Your task to perform on an android device: toggle show notifications on the lock screen Image 0: 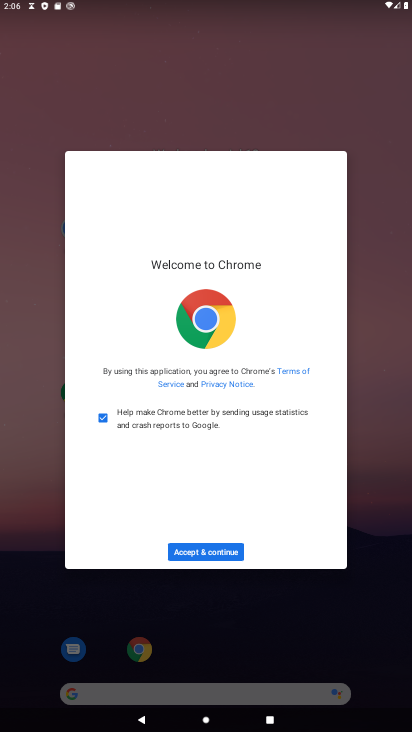
Step 0: press home button
Your task to perform on an android device: toggle show notifications on the lock screen Image 1: 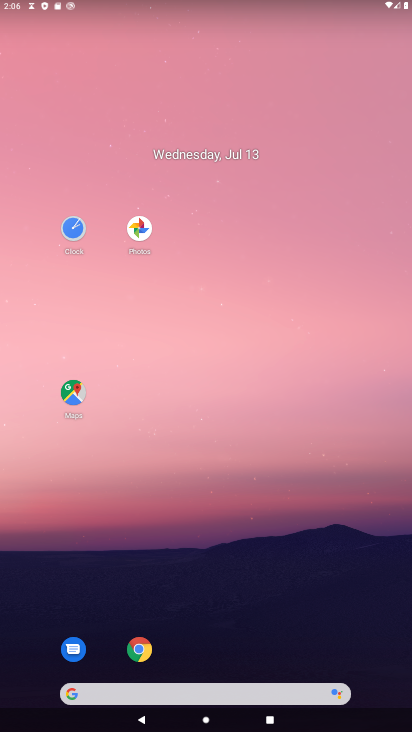
Step 1: drag from (198, 599) to (215, 125)
Your task to perform on an android device: toggle show notifications on the lock screen Image 2: 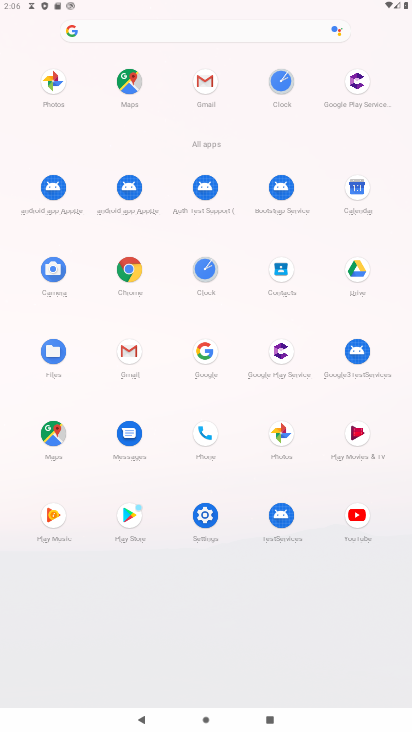
Step 2: drag from (193, 505) to (163, 313)
Your task to perform on an android device: toggle show notifications on the lock screen Image 3: 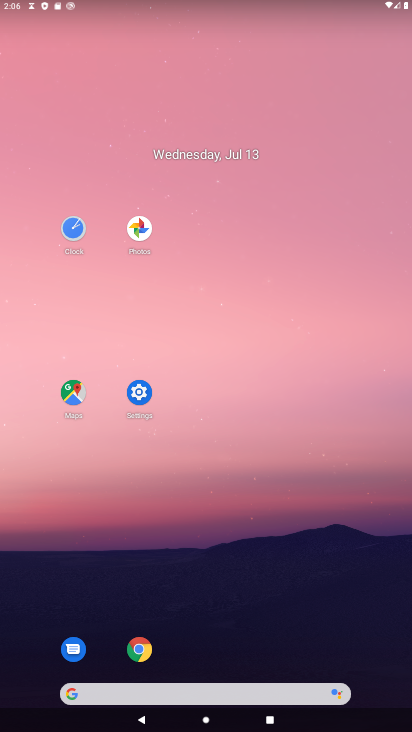
Step 3: click (140, 391)
Your task to perform on an android device: toggle show notifications on the lock screen Image 4: 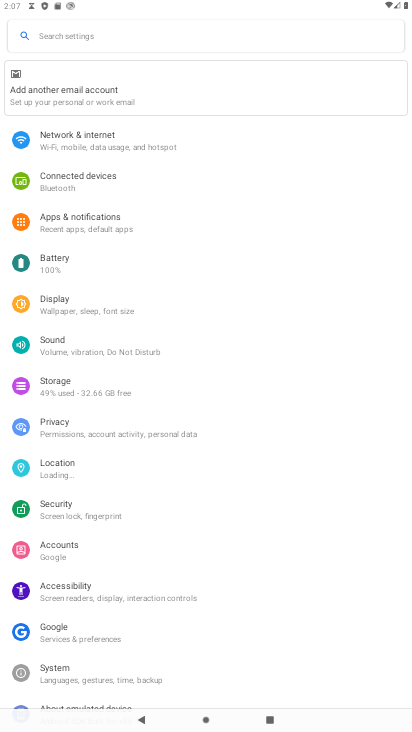
Step 4: click (114, 232)
Your task to perform on an android device: toggle show notifications on the lock screen Image 5: 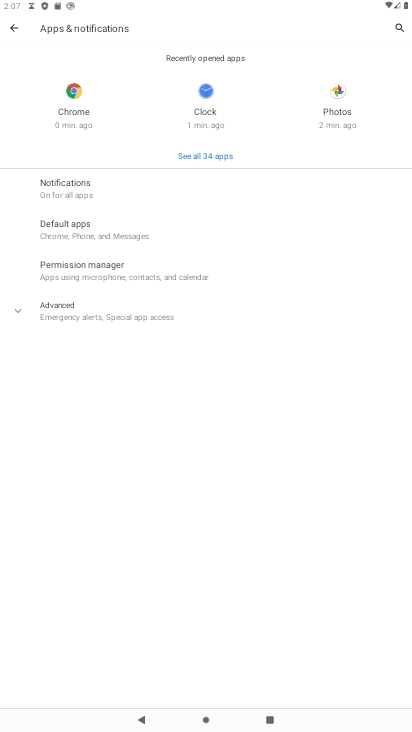
Step 5: click (100, 179)
Your task to perform on an android device: toggle show notifications on the lock screen Image 6: 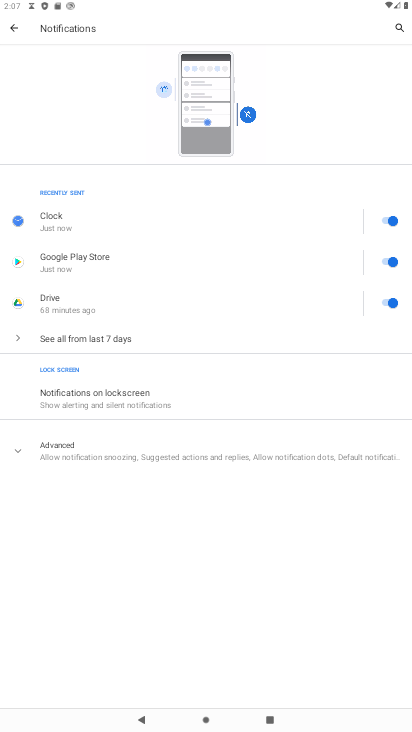
Step 6: click (111, 442)
Your task to perform on an android device: toggle show notifications on the lock screen Image 7: 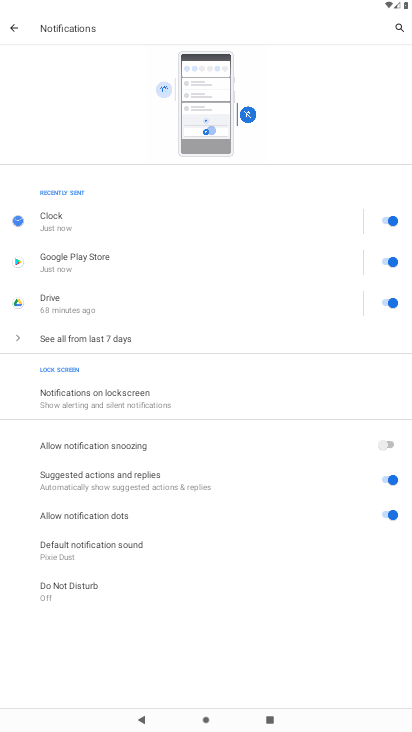
Step 7: click (129, 415)
Your task to perform on an android device: toggle show notifications on the lock screen Image 8: 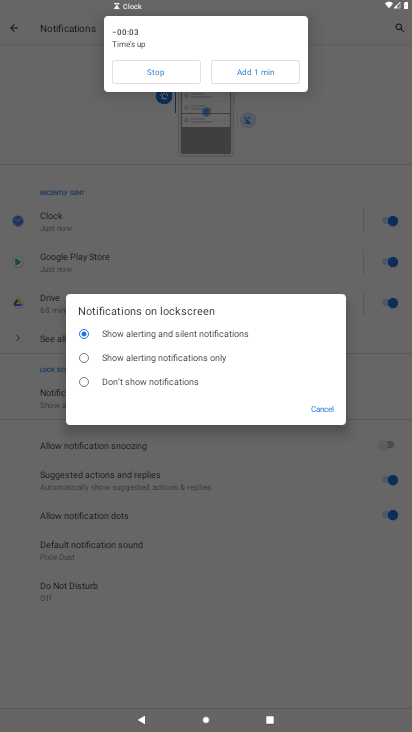
Step 8: click (138, 354)
Your task to perform on an android device: toggle show notifications on the lock screen Image 9: 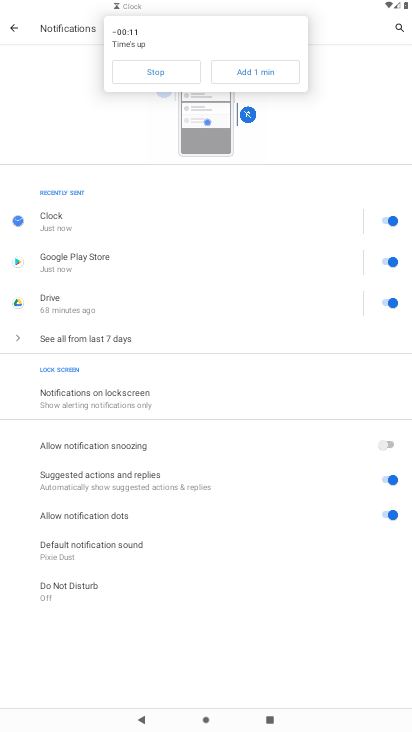
Step 9: task complete